Your task to perform on an android device: Do I have any events today? Image 0: 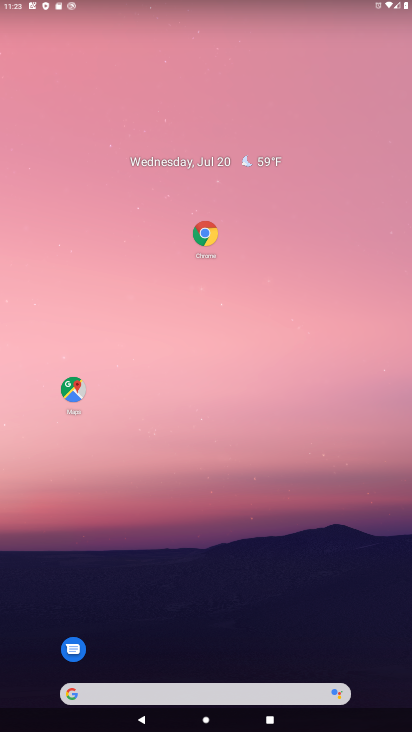
Step 0: drag from (221, 671) to (250, 94)
Your task to perform on an android device: Do I have any events today? Image 1: 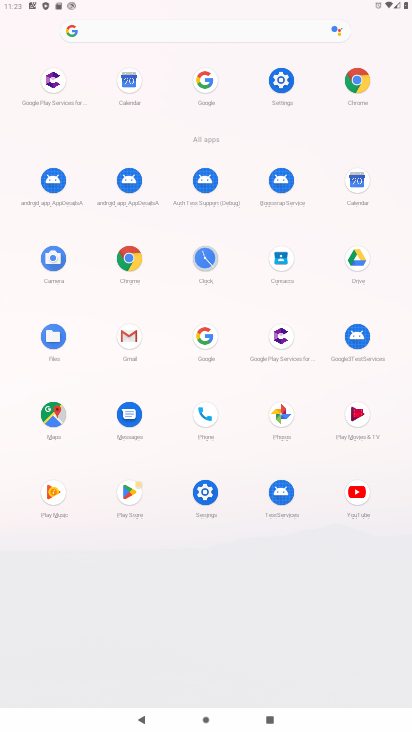
Step 1: click (356, 180)
Your task to perform on an android device: Do I have any events today? Image 2: 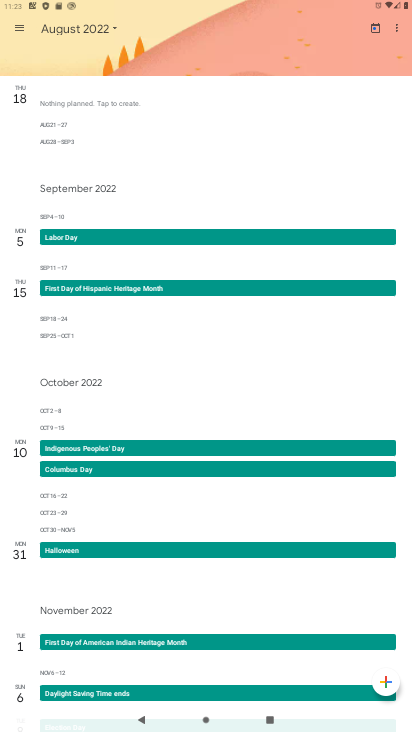
Step 2: click (105, 30)
Your task to perform on an android device: Do I have any events today? Image 3: 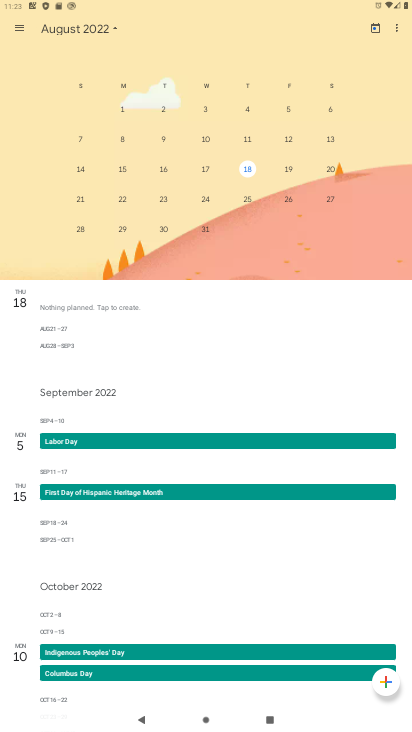
Step 3: drag from (41, 245) to (384, 234)
Your task to perform on an android device: Do I have any events today? Image 4: 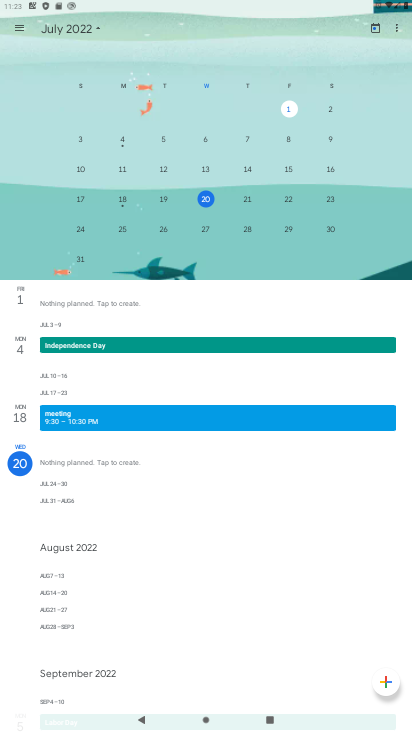
Step 4: click (206, 201)
Your task to perform on an android device: Do I have any events today? Image 5: 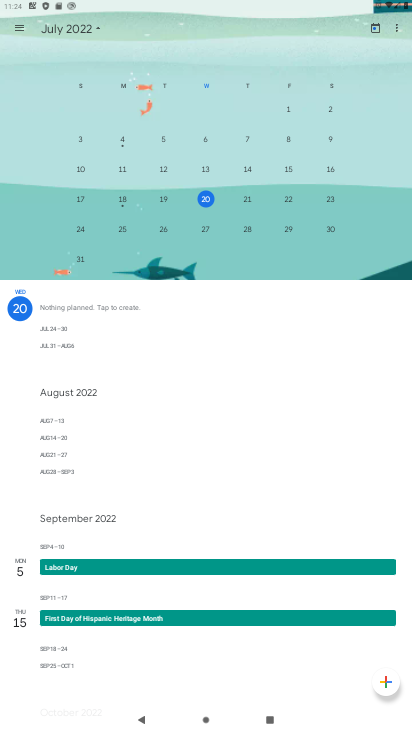
Step 5: task complete